Your task to perform on an android device: Do I have any events tomorrow? Image 0: 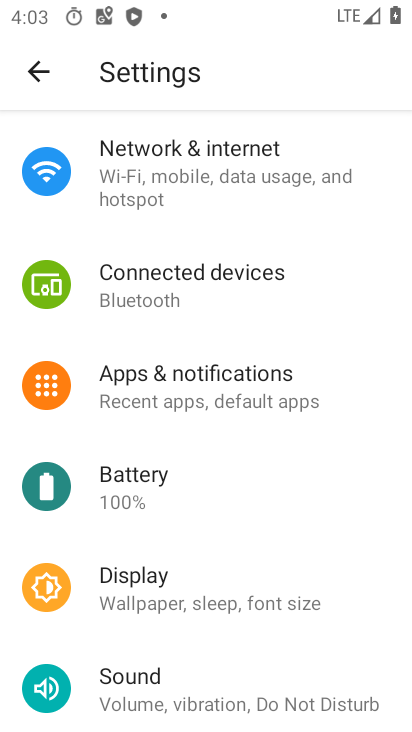
Step 0: press home button
Your task to perform on an android device: Do I have any events tomorrow? Image 1: 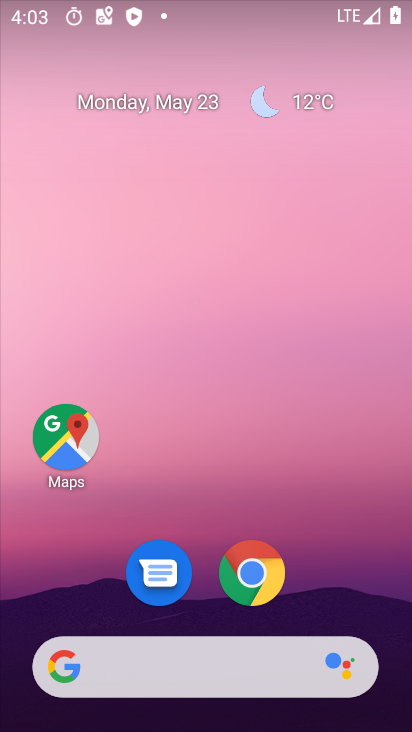
Step 1: drag from (100, 469) to (312, 97)
Your task to perform on an android device: Do I have any events tomorrow? Image 2: 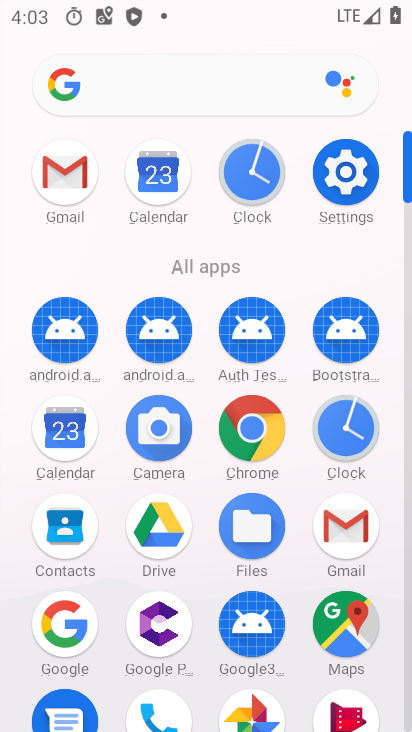
Step 2: click (160, 162)
Your task to perform on an android device: Do I have any events tomorrow? Image 3: 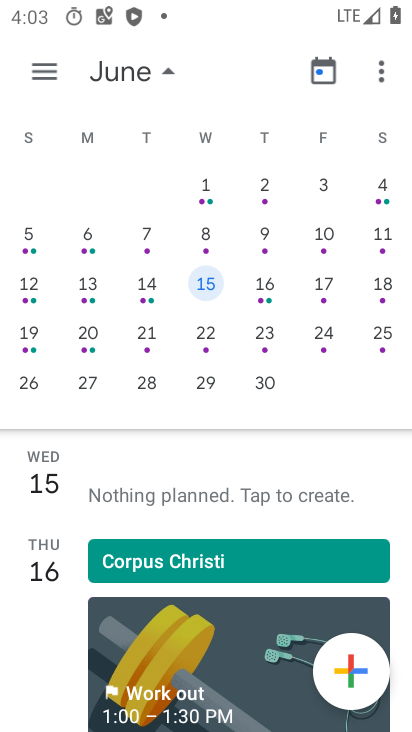
Step 3: click (266, 292)
Your task to perform on an android device: Do I have any events tomorrow? Image 4: 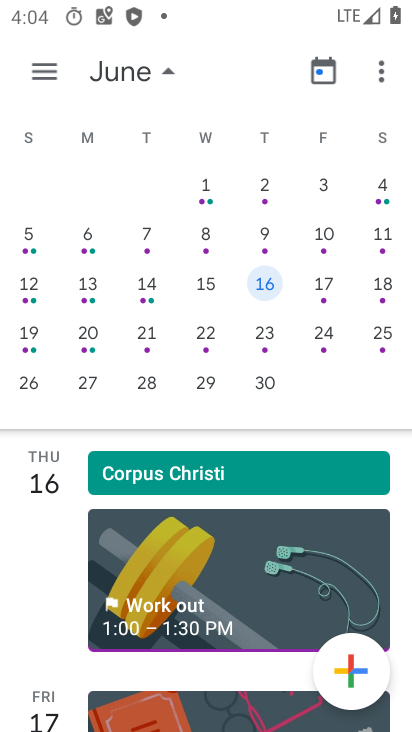
Step 4: task complete